Your task to perform on an android device: open the mobile data screen to see how much data has been used Image 0: 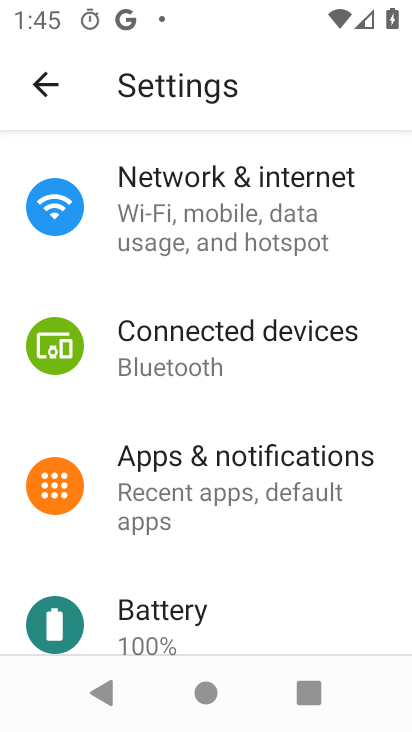
Step 0: click (331, 208)
Your task to perform on an android device: open the mobile data screen to see how much data has been used Image 1: 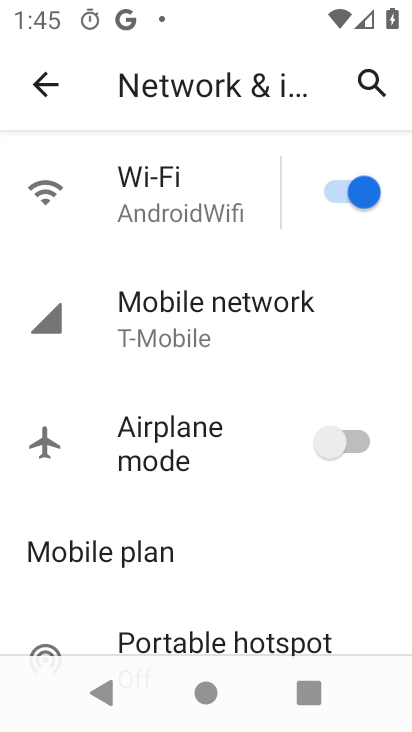
Step 1: click (164, 204)
Your task to perform on an android device: open the mobile data screen to see how much data has been used Image 2: 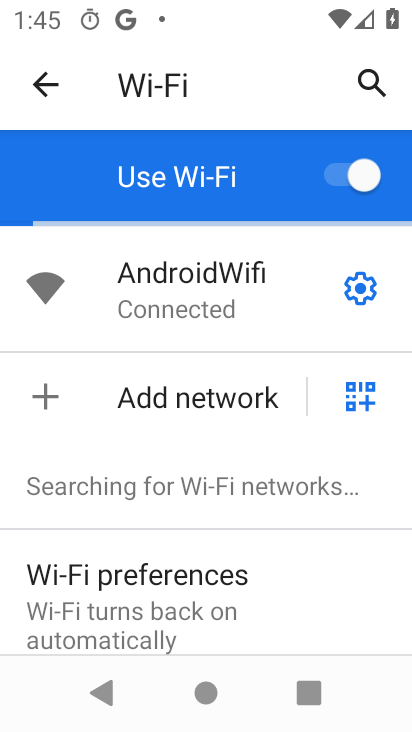
Step 2: drag from (105, 478) to (144, 121)
Your task to perform on an android device: open the mobile data screen to see how much data has been used Image 3: 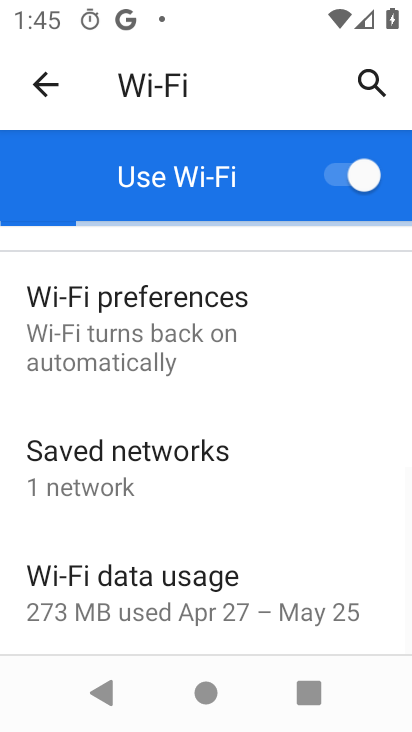
Step 3: press back button
Your task to perform on an android device: open the mobile data screen to see how much data has been used Image 4: 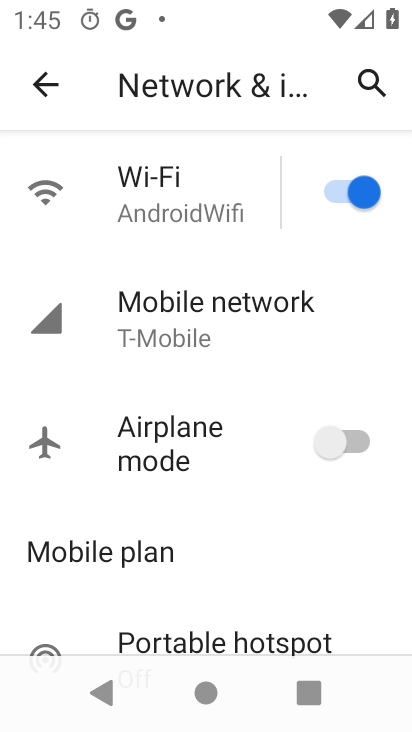
Step 4: click (162, 322)
Your task to perform on an android device: open the mobile data screen to see how much data has been used Image 5: 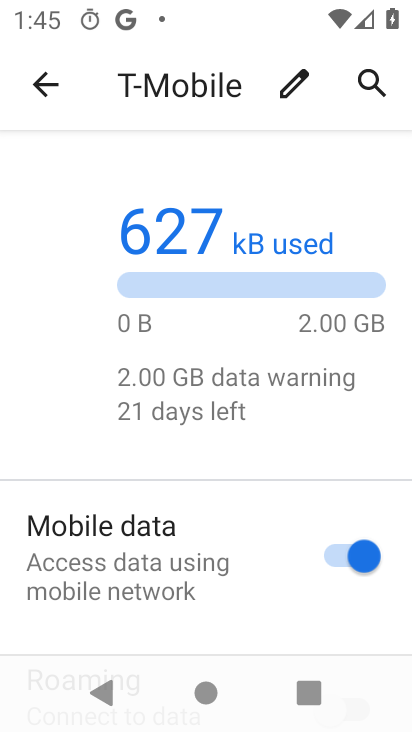
Step 5: task complete